Your task to perform on an android device: Open calendar and show me the second week of next month Image 0: 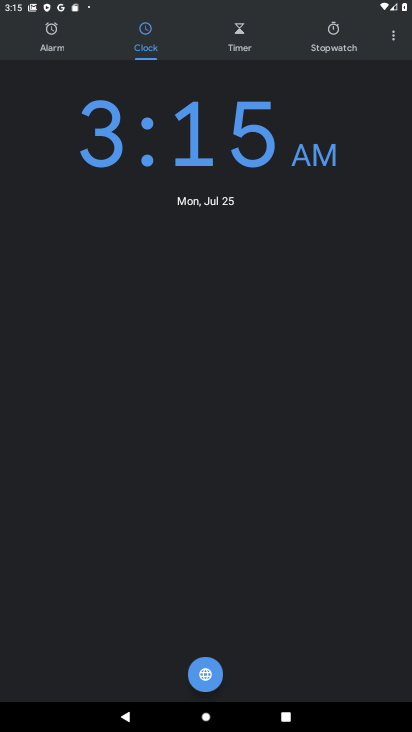
Step 0: press home button
Your task to perform on an android device: Open calendar and show me the second week of next month Image 1: 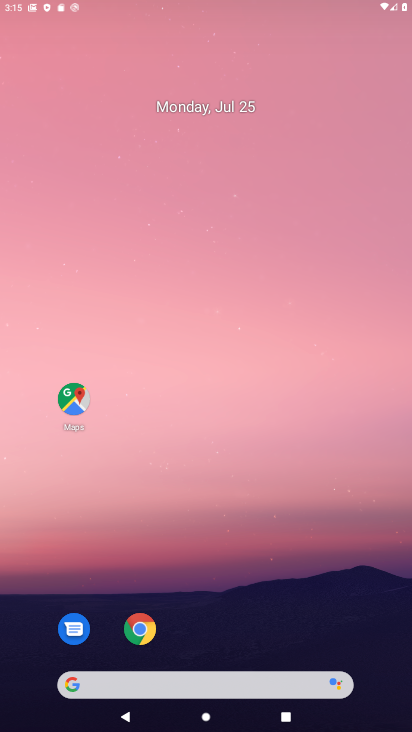
Step 1: drag from (167, 657) to (364, 2)
Your task to perform on an android device: Open calendar and show me the second week of next month Image 2: 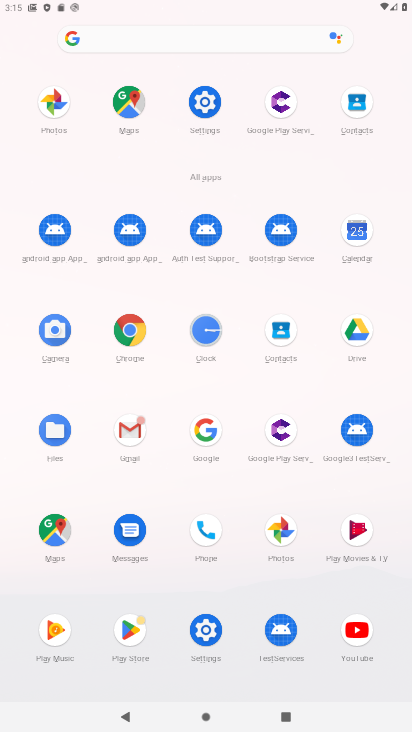
Step 2: click (357, 236)
Your task to perform on an android device: Open calendar and show me the second week of next month Image 3: 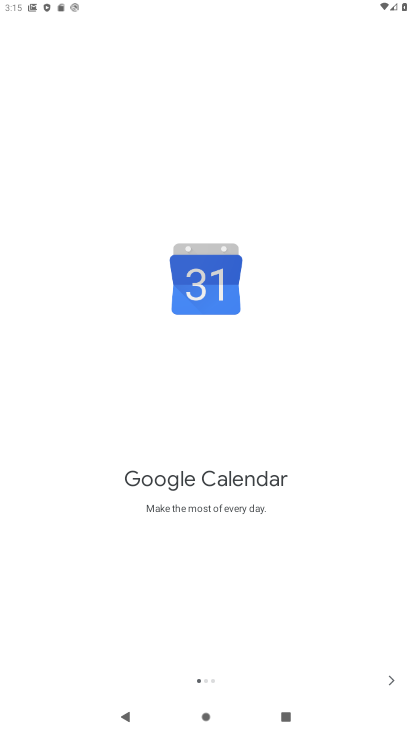
Step 3: click (392, 677)
Your task to perform on an android device: Open calendar and show me the second week of next month Image 4: 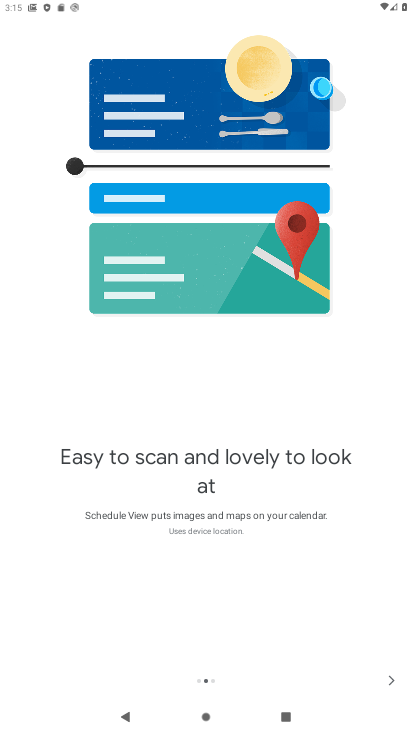
Step 4: click (392, 677)
Your task to perform on an android device: Open calendar and show me the second week of next month Image 5: 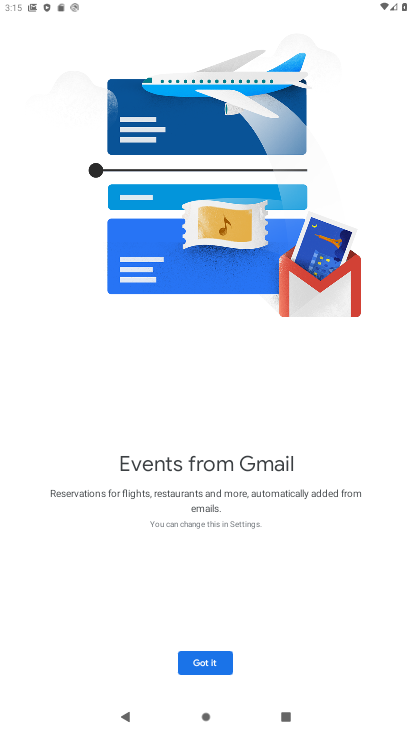
Step 5: click (220, 670)
Your task to perform on an android device: Open calendar and show me the second week of next month Image 6: 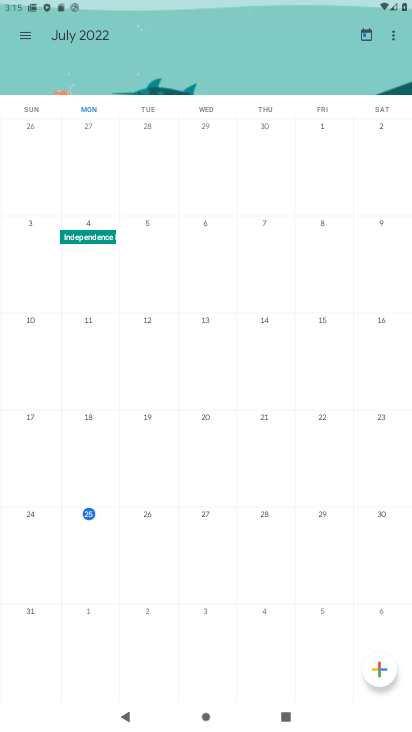
Step 6: drag from (371, 325) to (4, 251)
Your task to perform on an android device: Open calendar and show me the second week of next month Image 7: 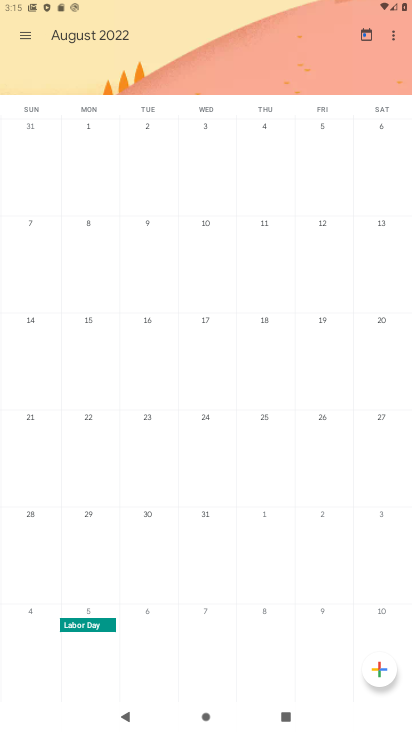
Step 7: click (208, 217)
Your task to perform on an android device: Open calendar and show me the second week of next month Image 8: 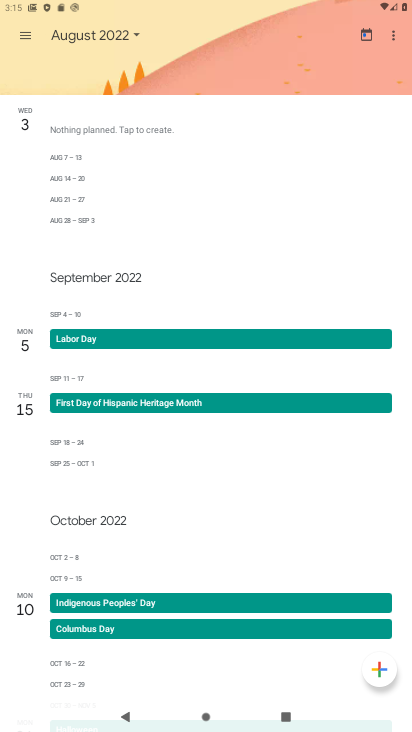
Step 8: task complete